Your task to perform on an android device: show emergency info Image 0: 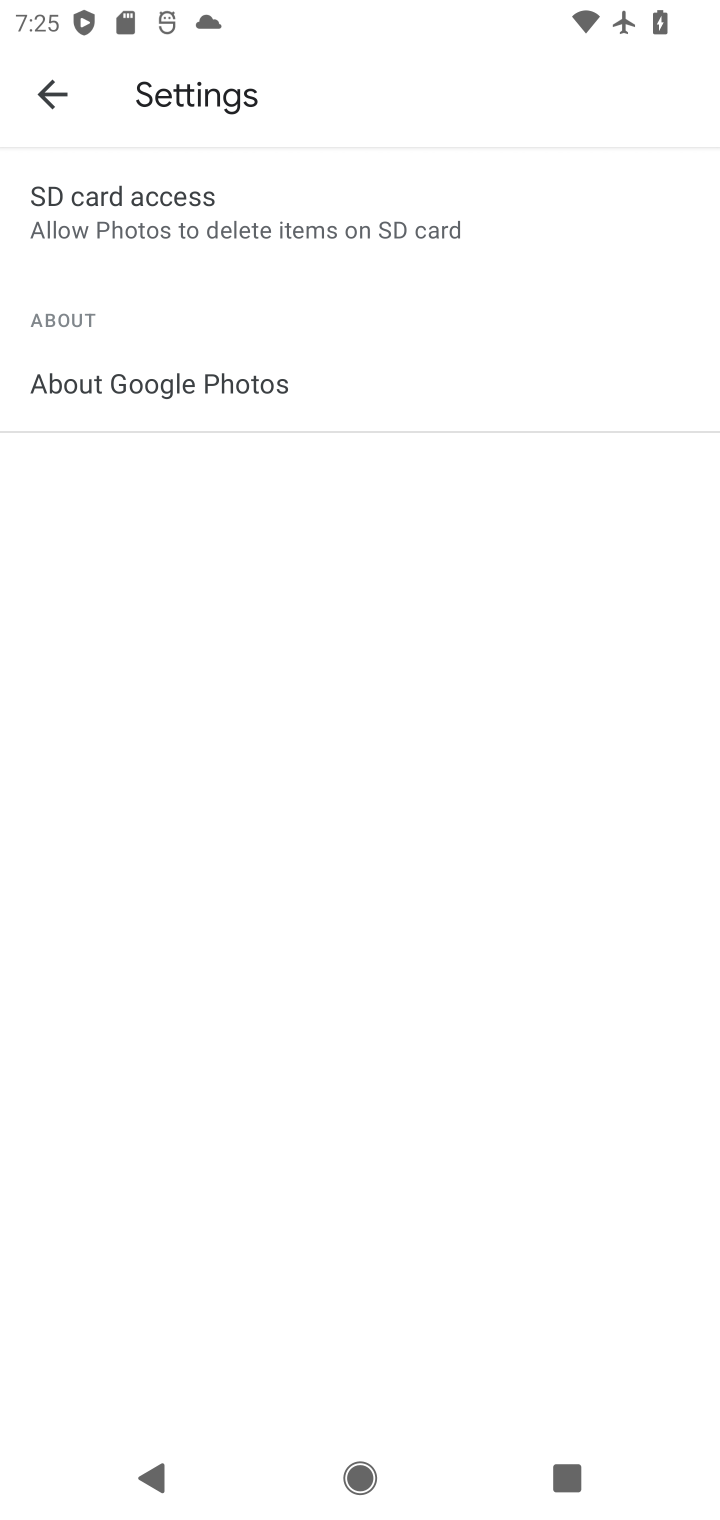
Step 0: press home button
Your task to perform on an android device: show emergency info Image 1: 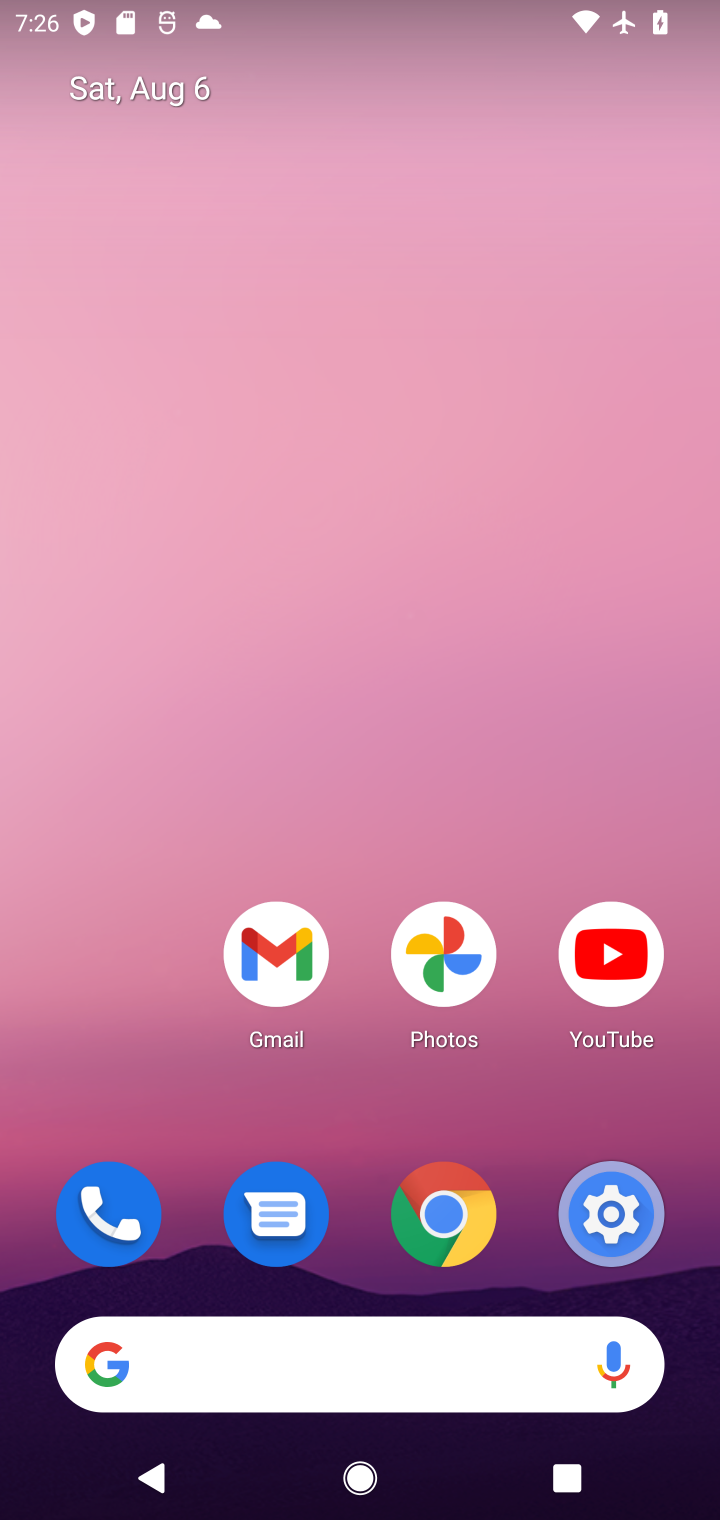
Step 1: drag from (341, 1277) to (393, 45)
Your task to perform on an android device: show emergency info Image 2: 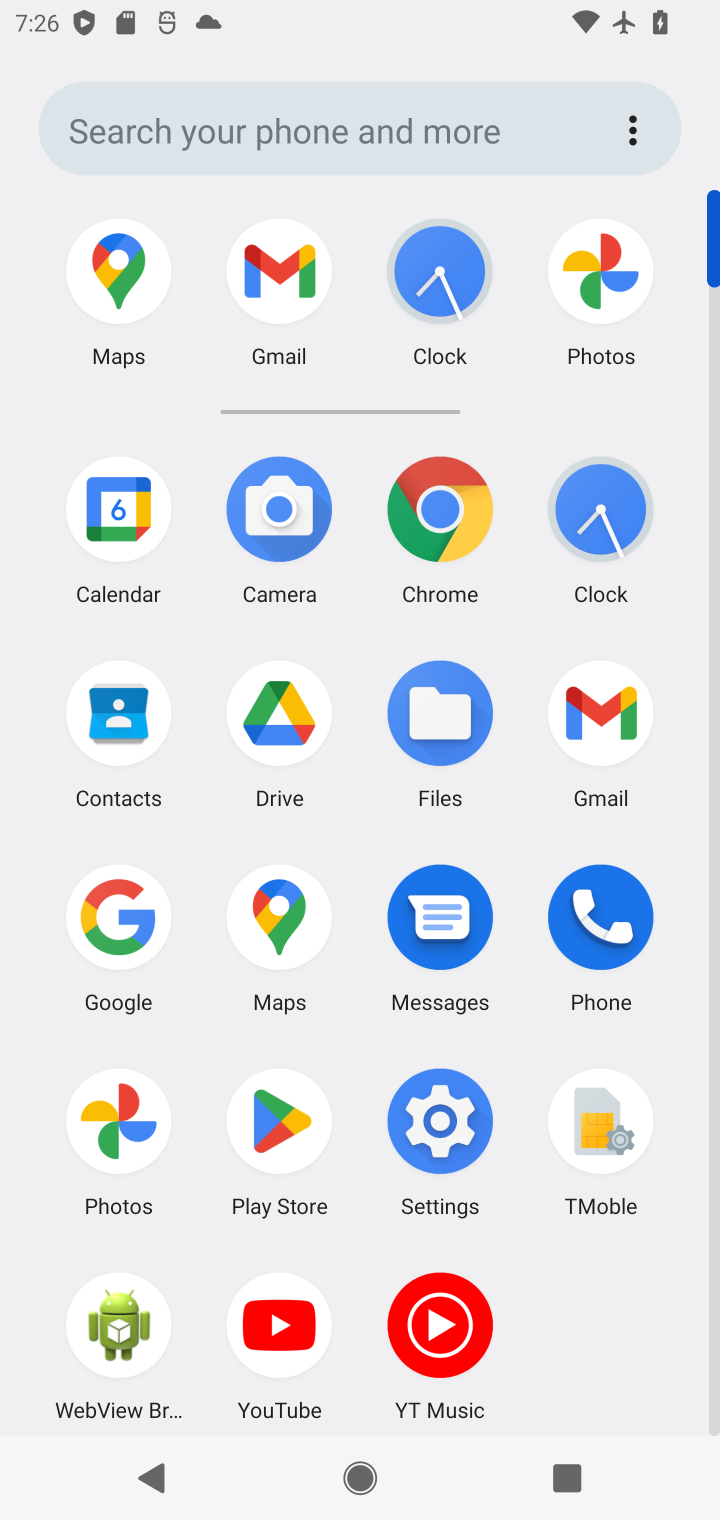
Step 2: click (433, 1136)
Your task to perform on an android device: show emergency info Image 3: 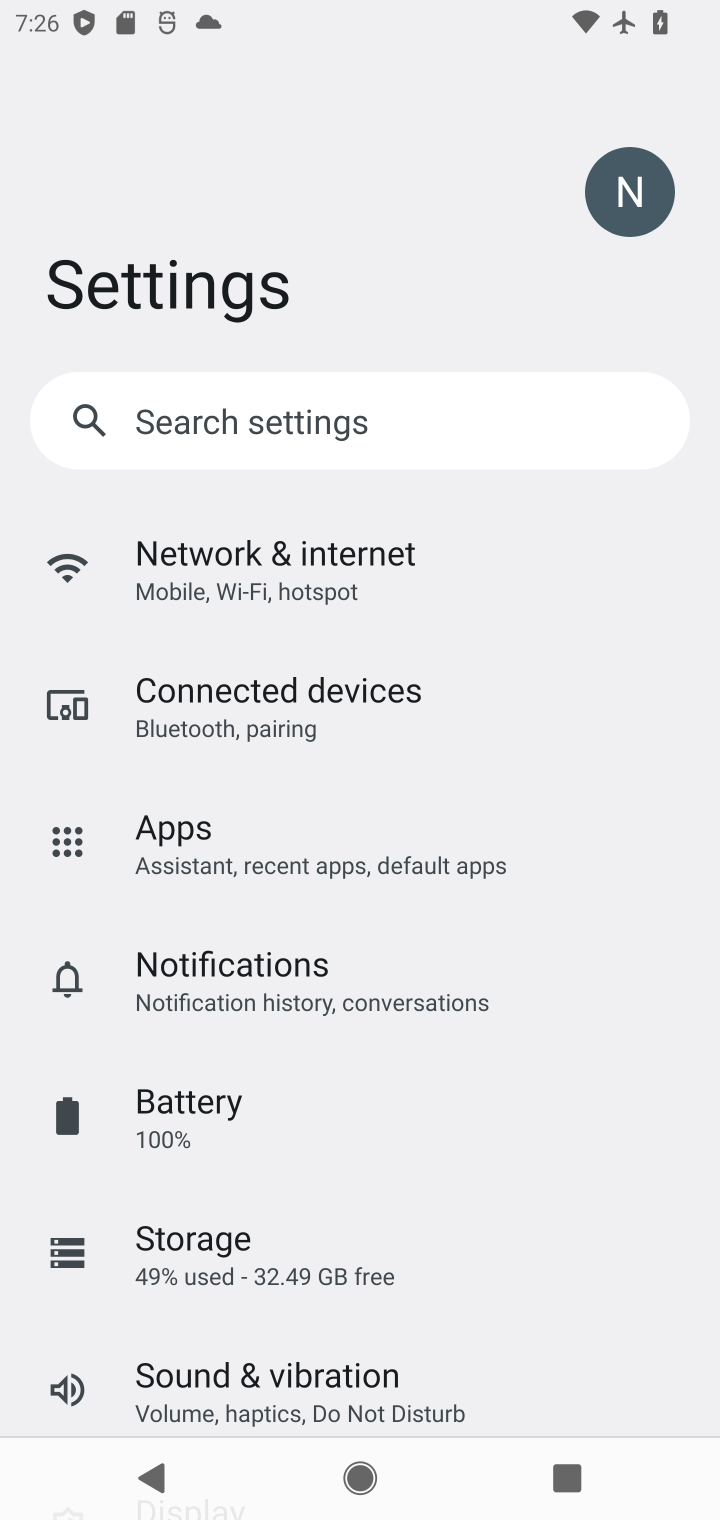
Step 3: drag from (336, 1284) to (455, 35)
Your task to perform on an android device: show emergency info Image 4: 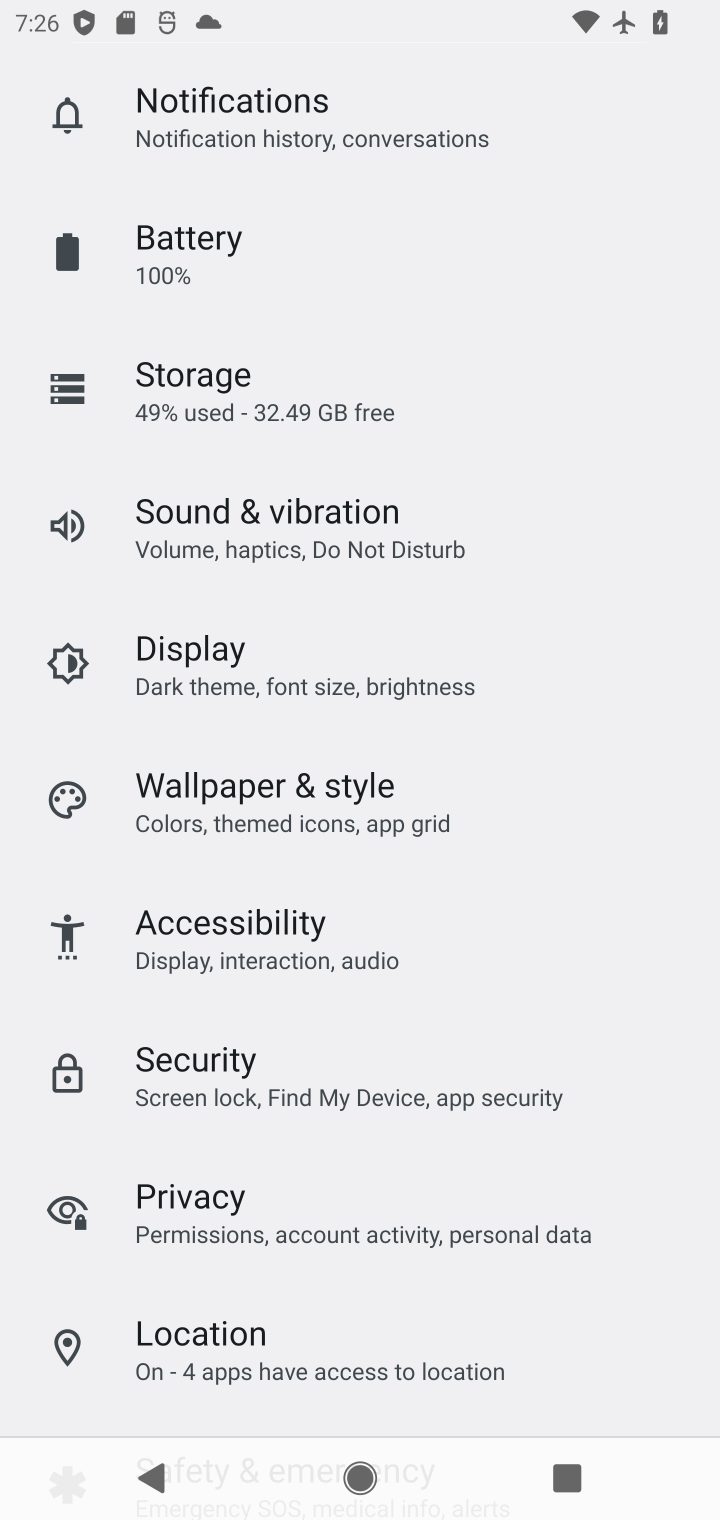
Step 4: drag from (354, 1253) to (338, 281)
Your task to perform on an android device: show emergency info Image 5: 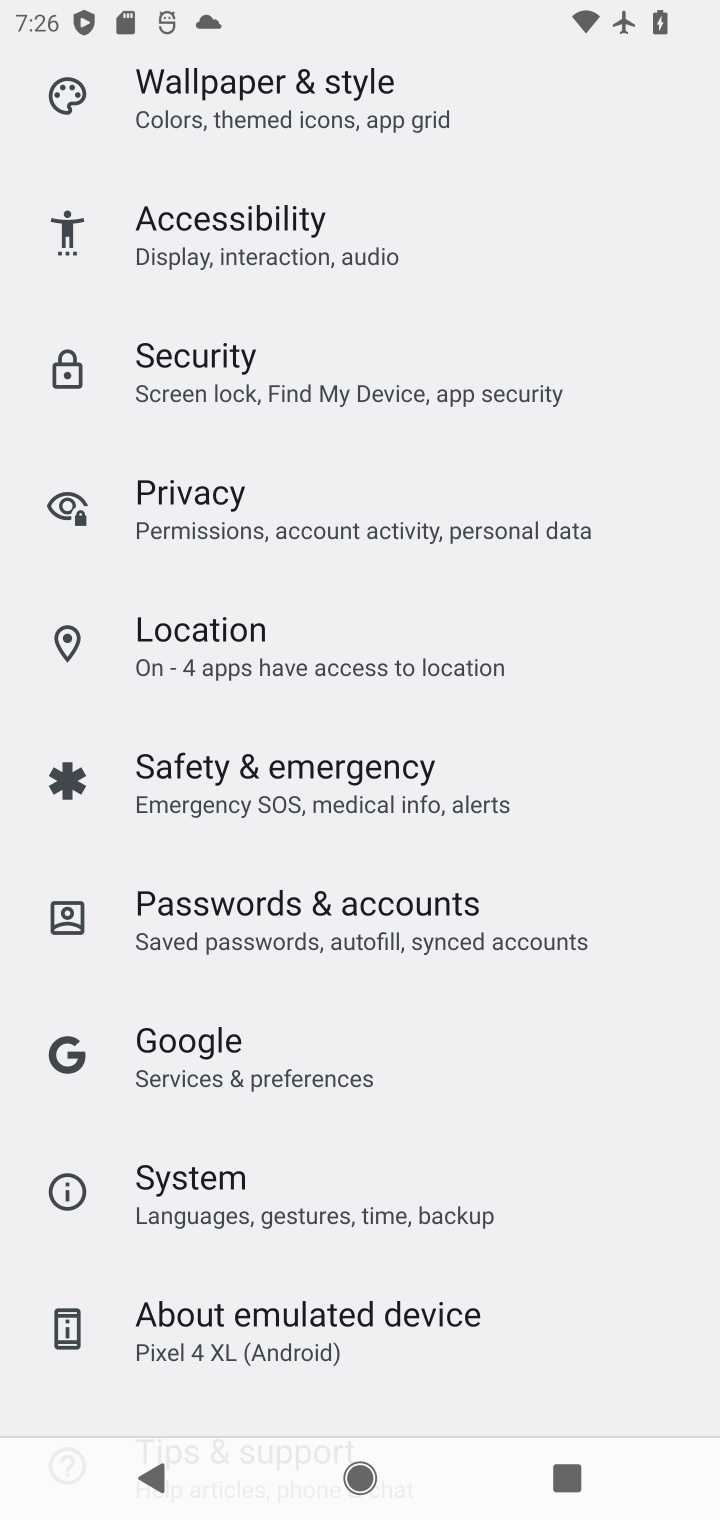
Step 5: drag from (277, 1290) to (325, 640)
Your task to perform on an android device: show emergency info Image 6: 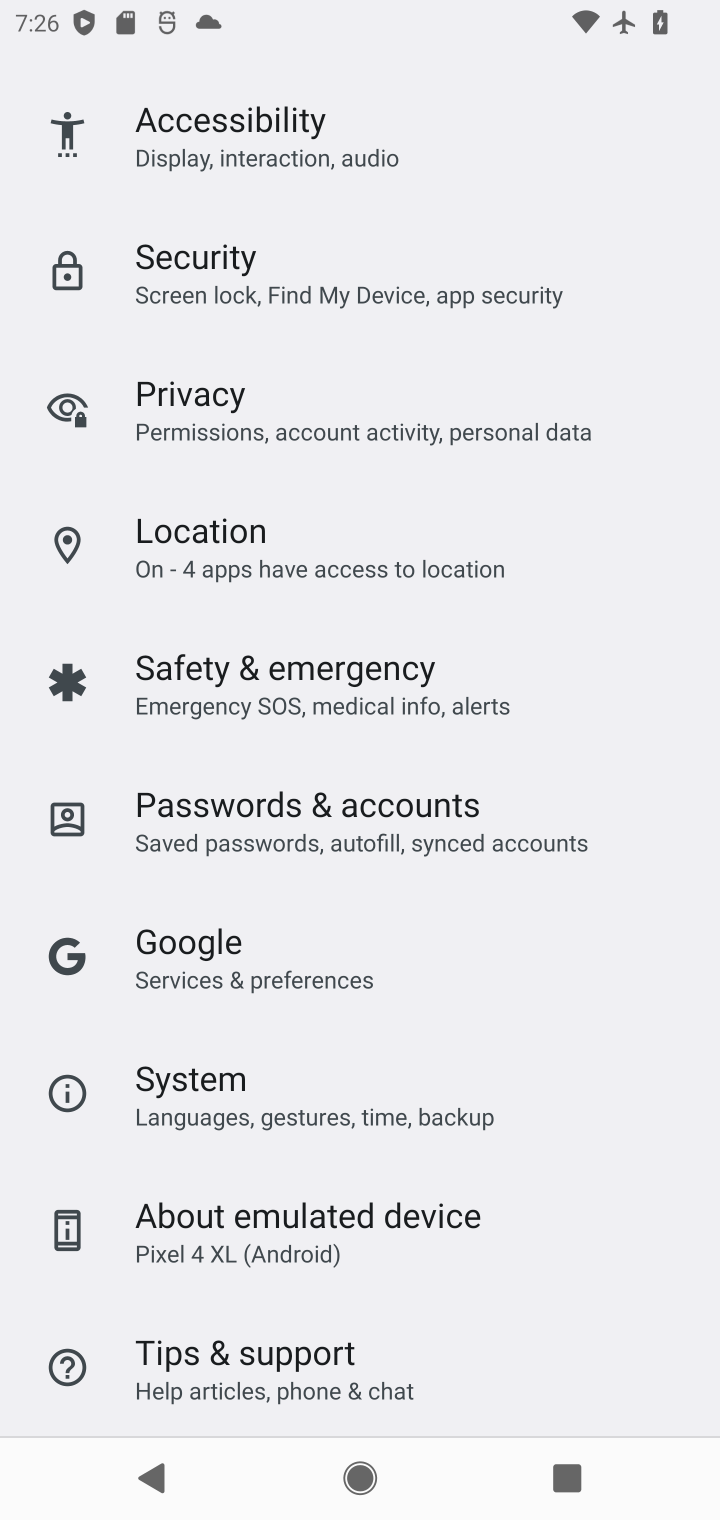
Step 6: click (242, 1251)
Your task to perform on an android device: show emergency info Image 7: 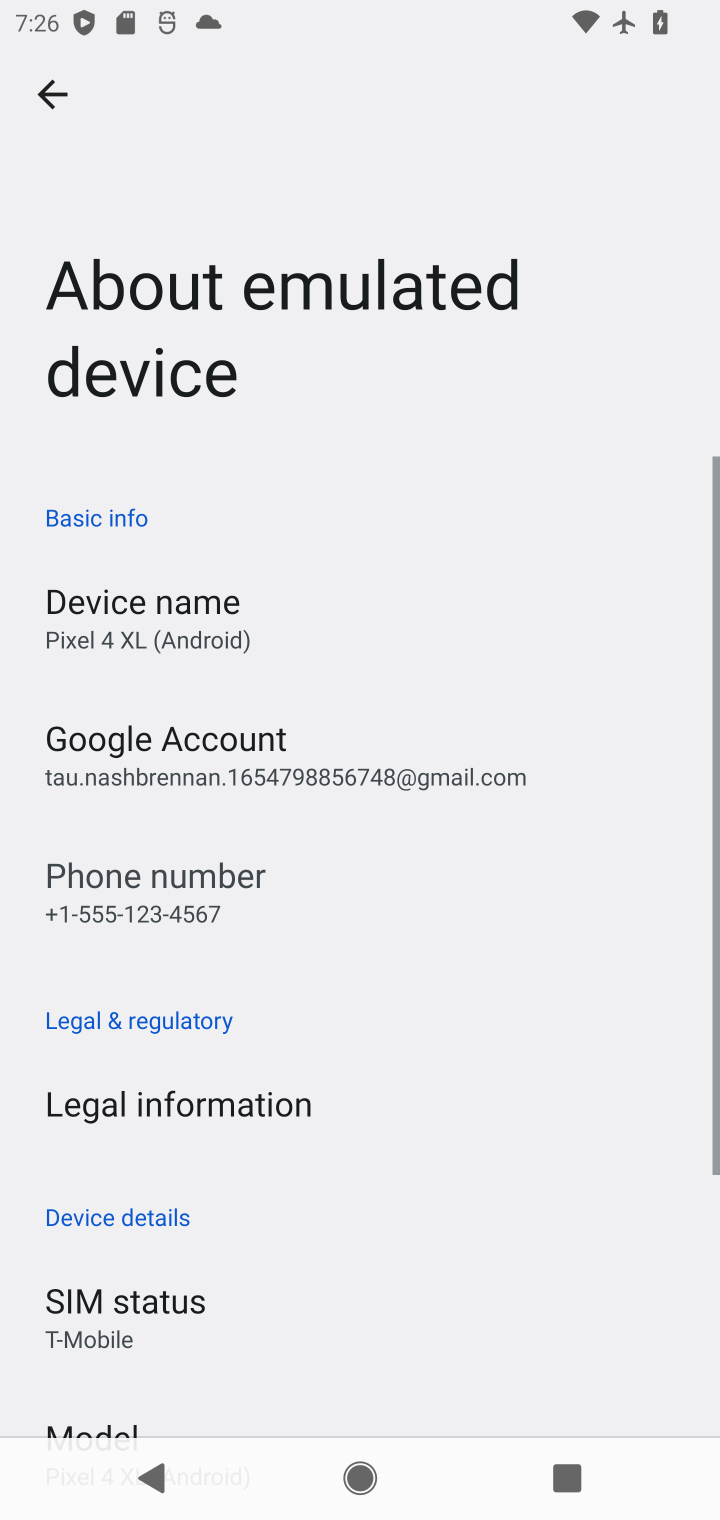
Step 7: task complete